Your task to perform on an android device: open app "Adobe Acrobat Reader: Edit PDF" (install if not already installed) Image 0: 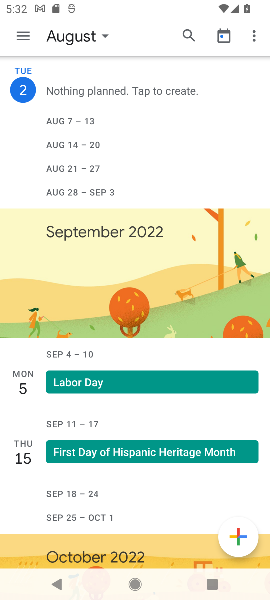
Step 0: press home button
Your task to perform on an android device: open app "Adobe Acrobat Reader: Edit PDF" (install if not already installed) Image 1: 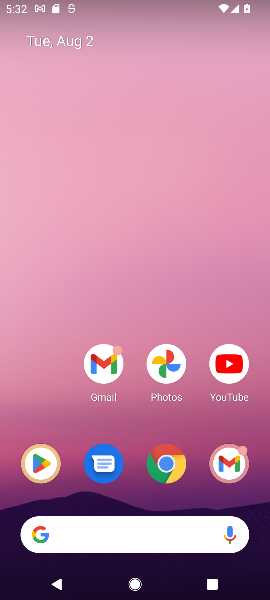
Step 1: click (44, 463)
Your task to perform on an android device: open app "Adobe Acrobat Reader: Edit PDF" (install if not already installed) Image 2: 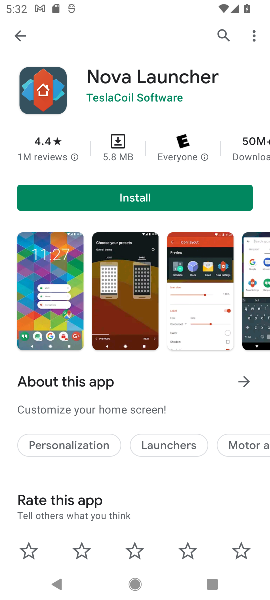
Step 2: click (225, 28)
Your task to perform on an android device: open app "Adobe Acrobat Reader: Edit PDF" (install if not already installed) Image 3: 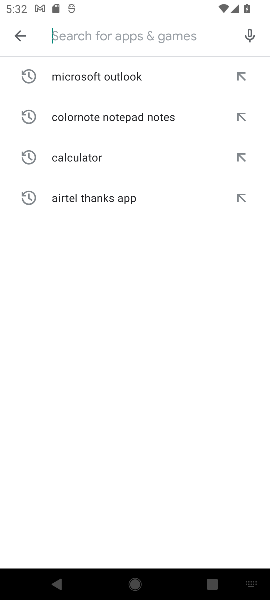
Step 3: type "Adobe Acrobat Reader: Edit PDF"
Your task to perform on an android device: open app "Adobe Acrobat Reader: Edit PDF" (install if not already installed) Image 4: 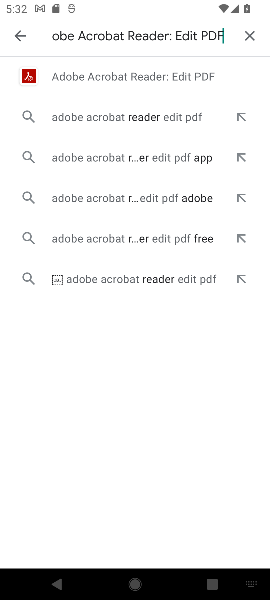
Step 4: click (137, 82)
Your task to perform on an android device: open app "Adobe Acrobat Reader: Edit PDF" (install if not already installed) Image 5: 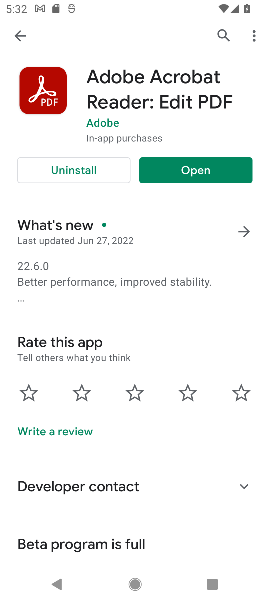
Step 5: click (195, 168)
Your task to perform on an android device: open app "Adobe Acrobat Reader: Edit PDF" (install if not already installed) Image 6: 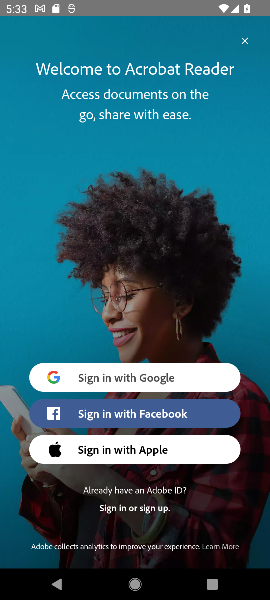
Step 6: task complete